Your task to perform on an android device: set an alarm Image 0: 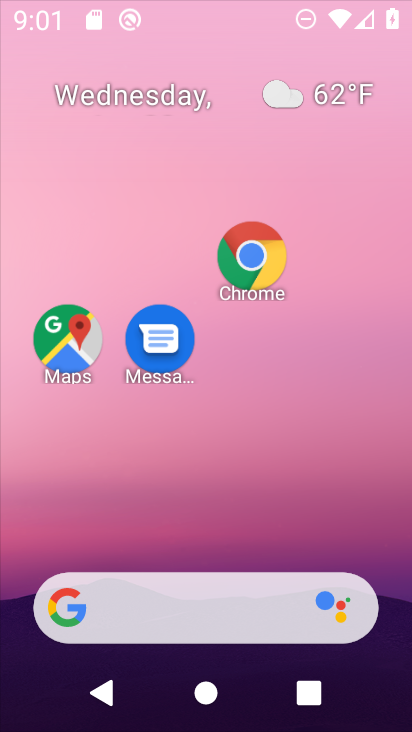
Step 0: click (216, 122)
Your task to perform on an android device: set an alarm Image 1: 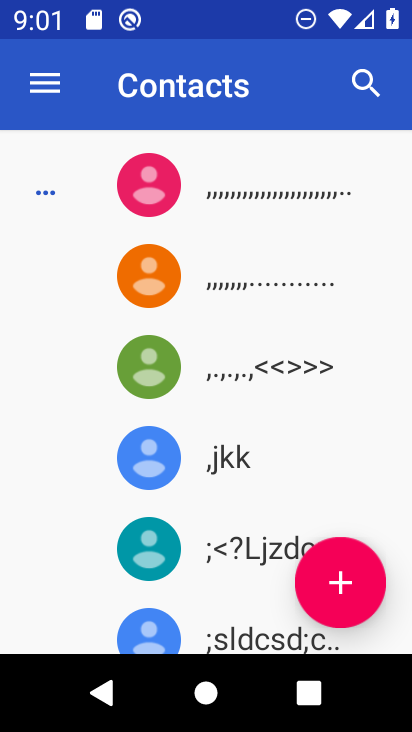
Step 1: press home button
Your task to perform on an android device: set an alarm Image 2: 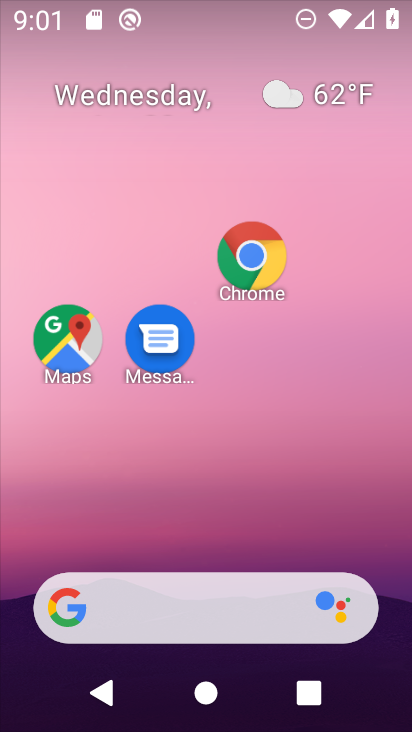
Step 2: drag from (246, 501) to (161, 120)
Your task to perform on an android device: set an alarm Image 3: 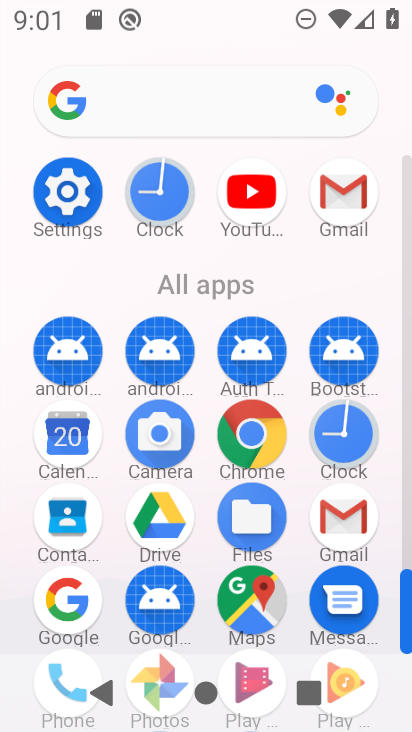
Step 3: click (158, 191)
Your task to perform on an android device: set an alarm Image 4: 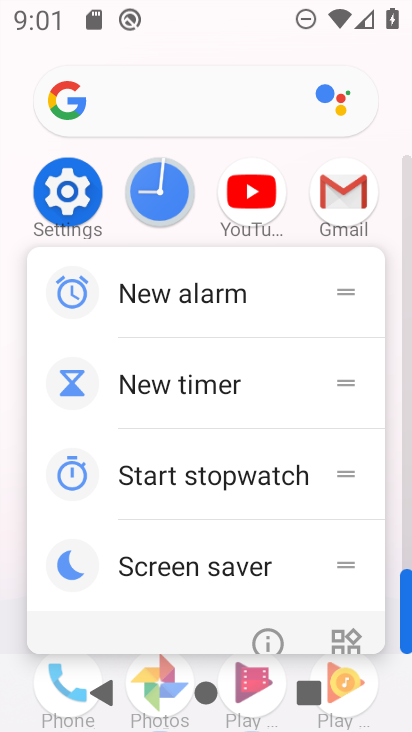
Step 4: click (195, 151)
Your task to perform on an android device: set an alarm Image 5: 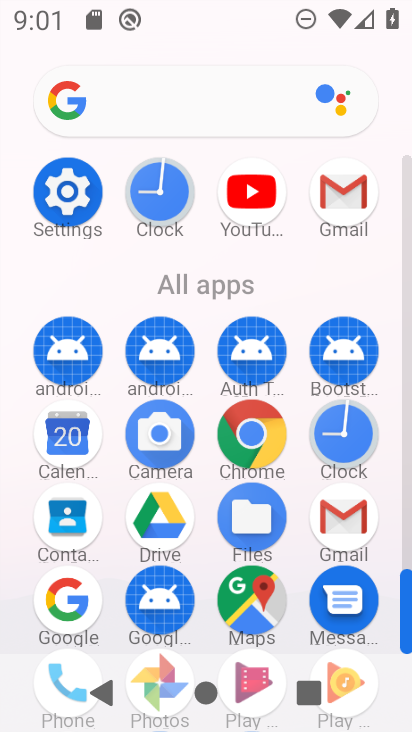
Step 5: click (158, 192)
Your task to perform on an android device: set an alarm Image 6: 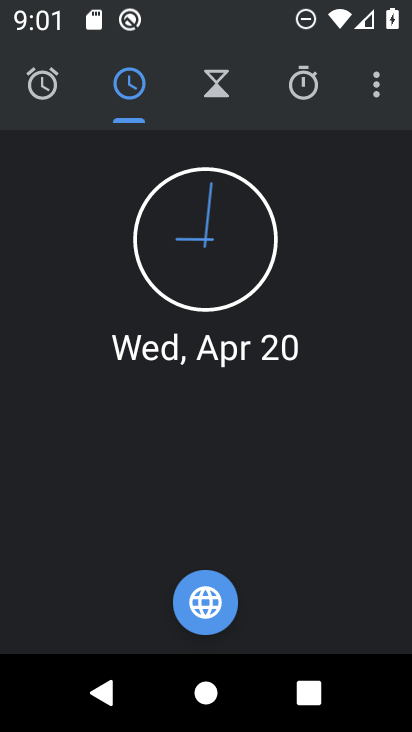
Step 6: click (44, 90)
Your task to perform on an android device: set an alarm Image 7: 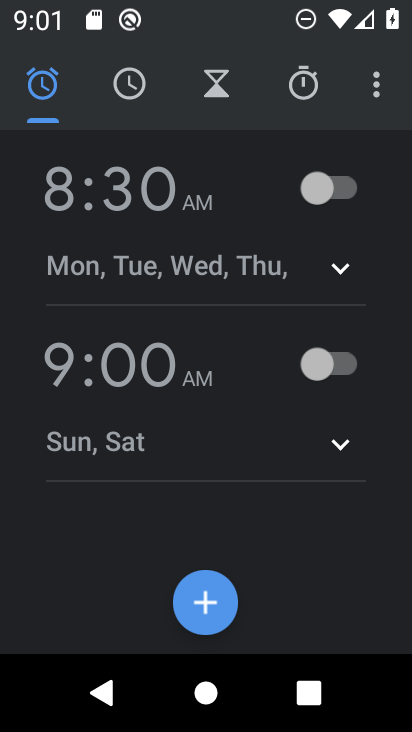
Step 7: click (328, 187)
Your task to perform on an android device: set an alarm Image 8: 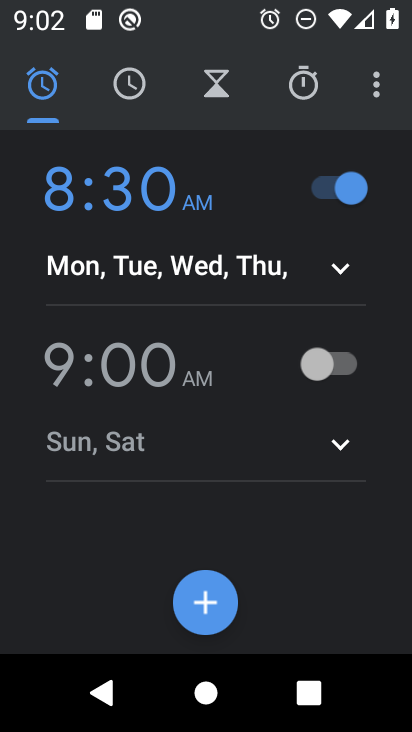
Step 8: task complete